Your task to perform on an android device: Is it going to rain tomorrow? Image 0: 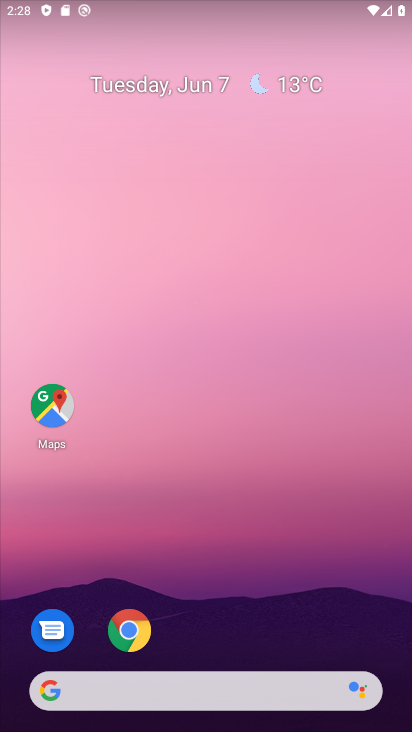
Step 0: click (264, 89)
Your task to perform on an android device: Is it going to rain tomorrow? Image 1: 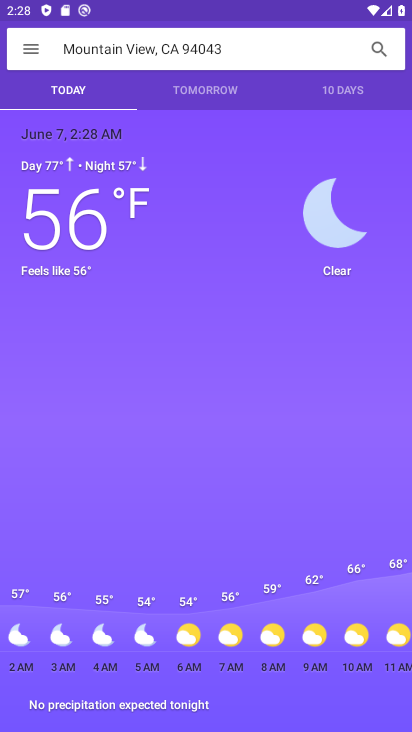
Step 1: click (178, 101)
Your task to perform on an android device: Is it going to rain tomorrow? Image 2: 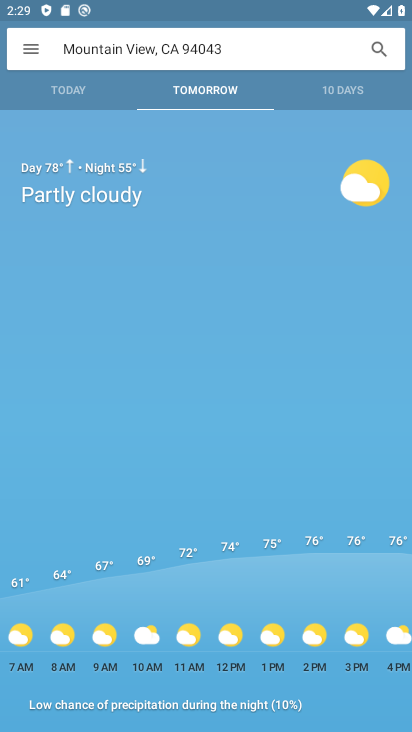
Step 2: task complete